Your task to perform on an android device: delete a single message in the gmail app Image 0: 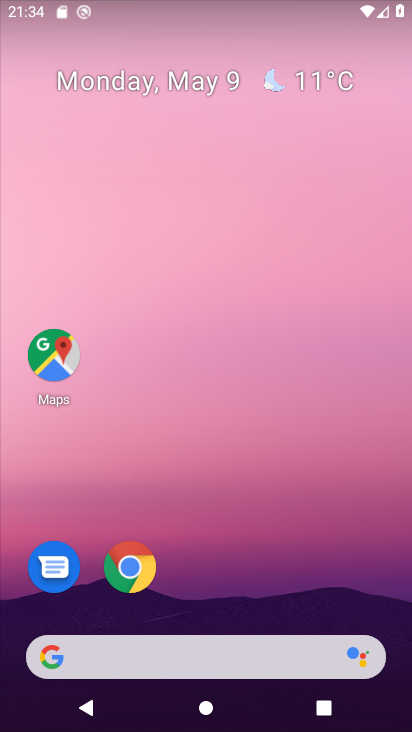
Step 0: drag from (278, 471) to (251, 141)
Your task to perform on an android device: delete a single message in the gmail app Image 1: 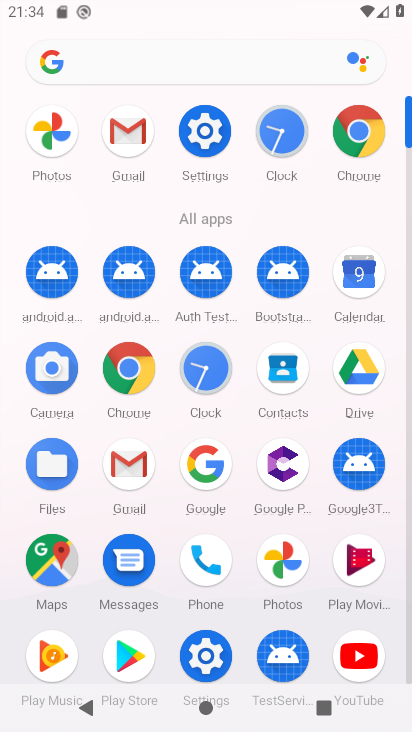
Step 1: click (127, 116)
Your task to perform on an android device: delete a single message in the gmail app Image 2: 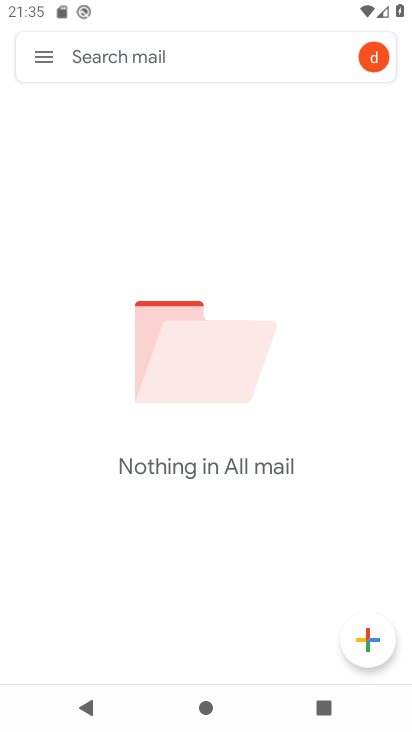
Step 2: click (47, 56)
Your task to perform on an android device: delete a single message in the gmail app Image 3: 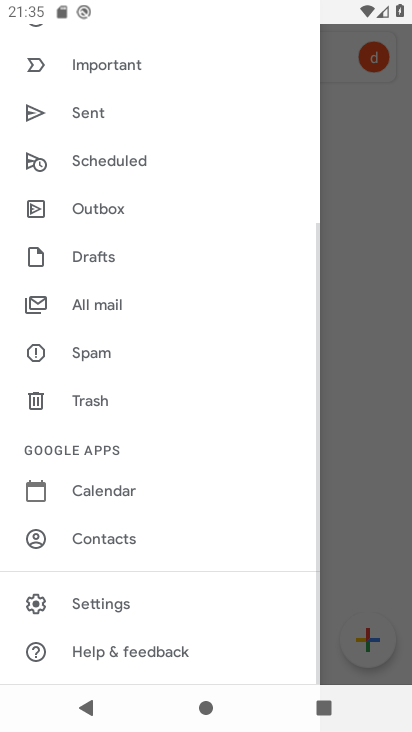
Step 3: click (130, 297)
Your task to perform on an android device: delete a single message in the gmail app Image 4: 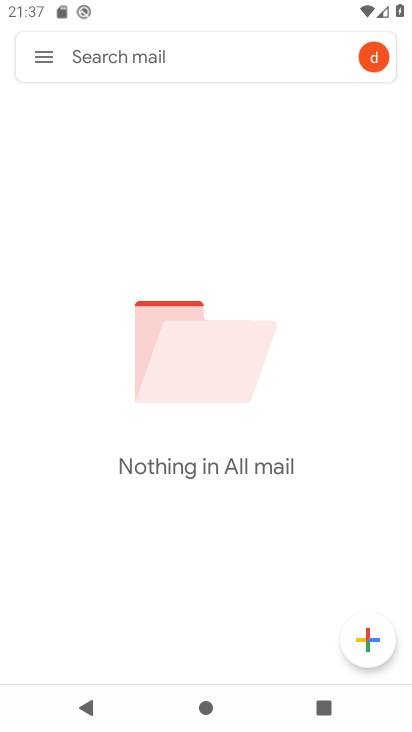
Step 4: task complete